Your task to perform on an android device: turn pop-ups on in chrome Image 0: 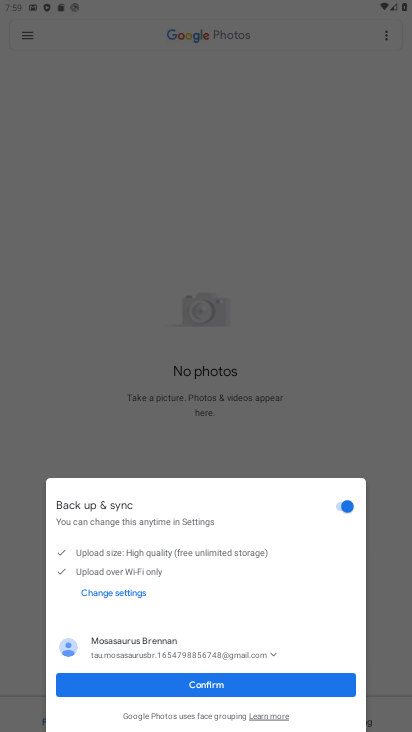
Step 0: press home button
Your task to perform on an android device: turn pop-ups on in chrome Image 1: 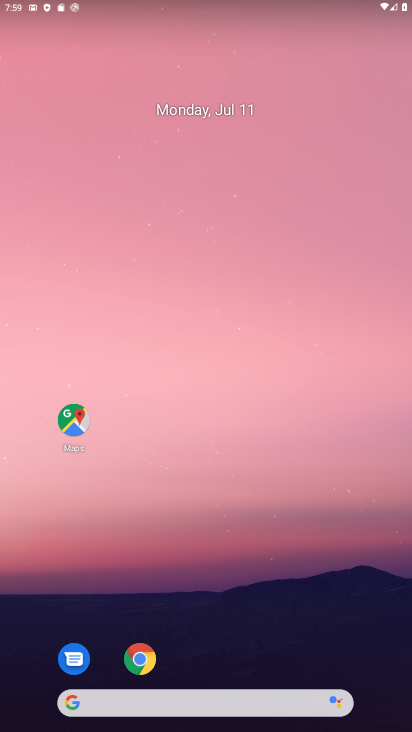
Step 1: click (146, 659)
Your task to perform on an android device: turn pop-ups on in chrome Image 2: 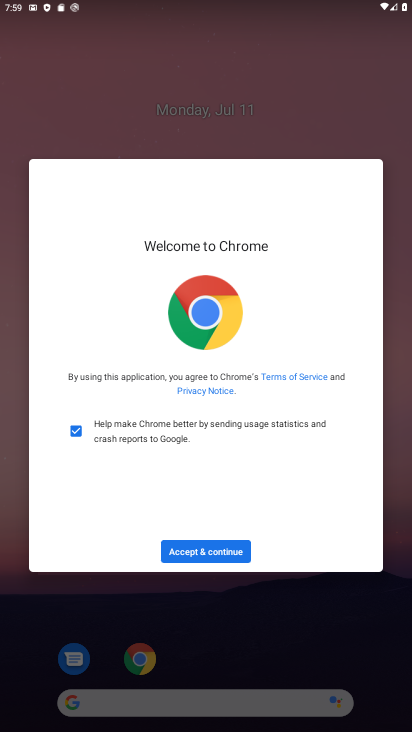
Step 2: click (242, 559)
Your task to perform on an android device: turn pop-ups on in chrome Image 3: 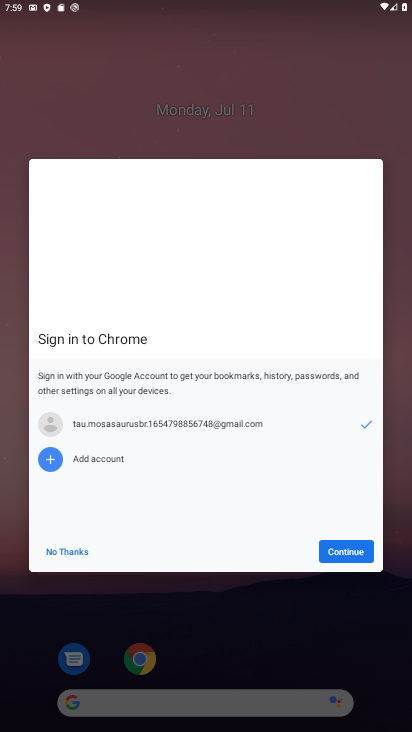
Step 3: click (358, 556)
Your task to perform on an android device: turn pop-ups on in chrome Image 4: 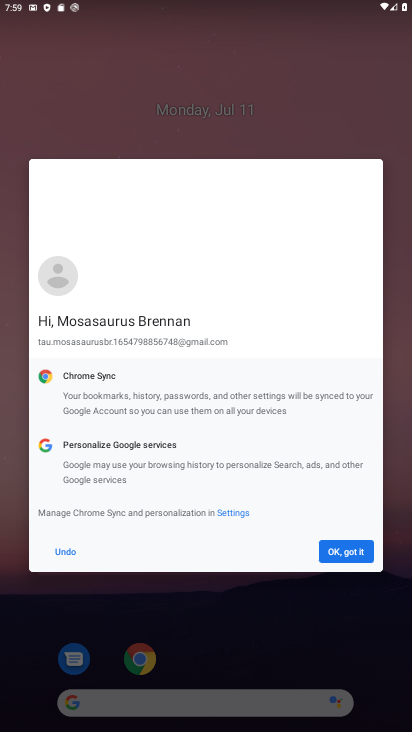
Step 4: click (352, 556)
Your task to perform on an android device: turn pop-ups on in chrome Image 5: 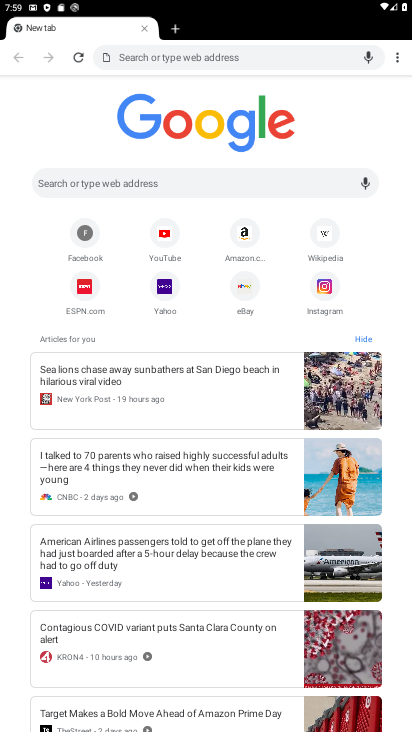
Step 5: click (394, 65)
Your task to perform on an android device: turn pop-ups on in chrome Image 6: 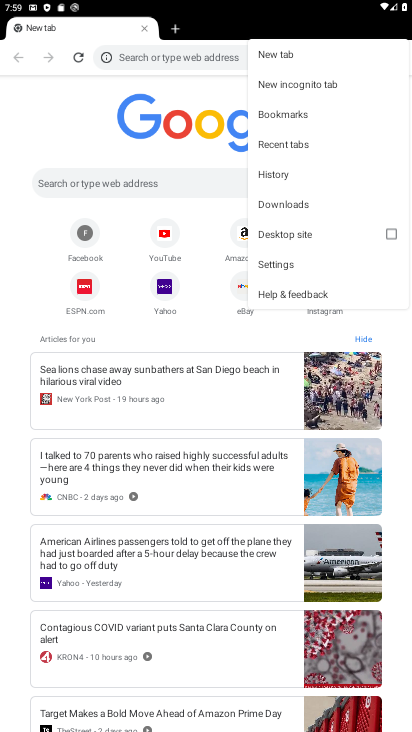
Step 6: click (305, 267)
Your task to perform on an android device: turn pop-ups on in chrome Image 7: 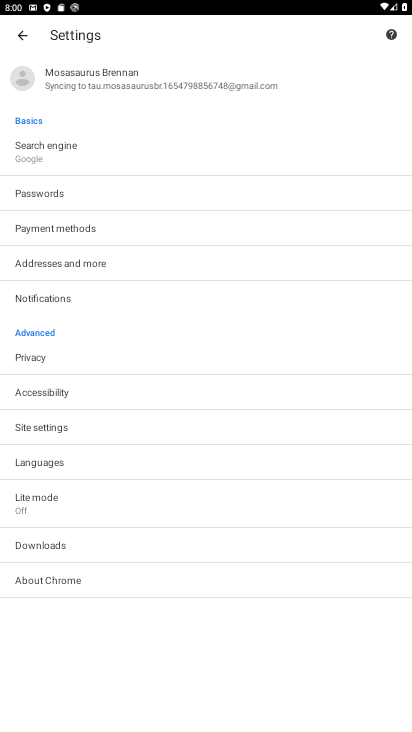
Step 7: click (101, 426)
Your task to perform on an android device: turn pop-ups on in chrome Image 8: 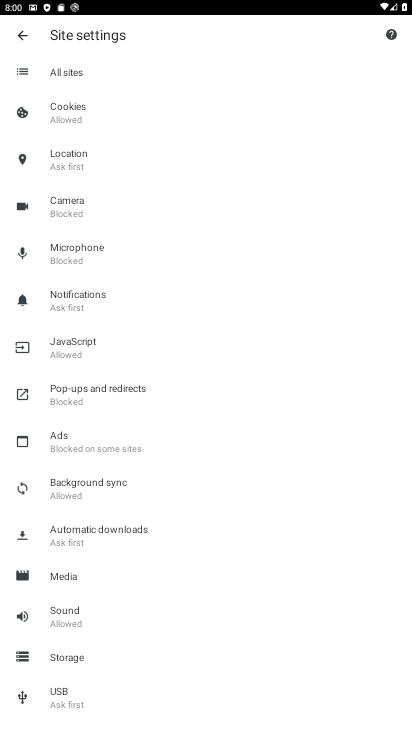
Step 8: click (156, 388)
Your task to perform on an android device: turn pop-ups on in chrome Image 9: 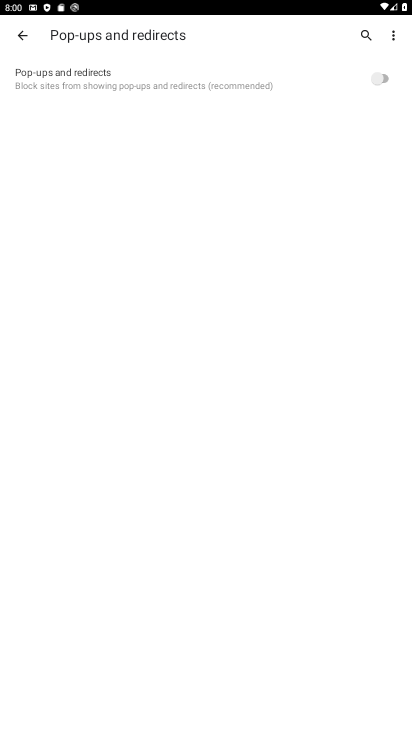
Step 9: click (378, 77)
Your task to perform on an android device: turn pop-ups on in chrome Image 10: 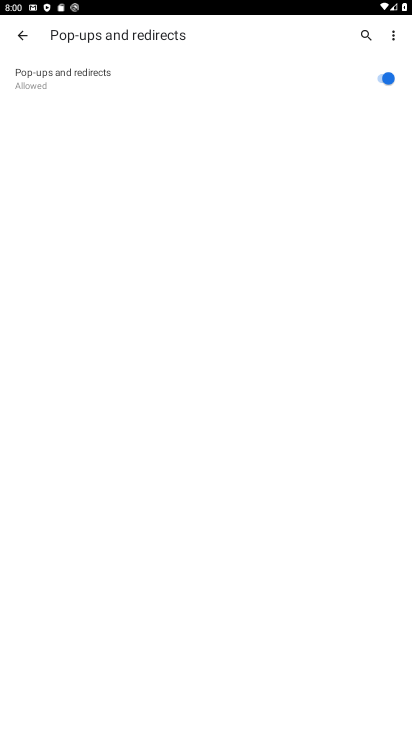
Step 10: task complete